Your task to perform on an android device: change the clock display to show seconds Image 0: 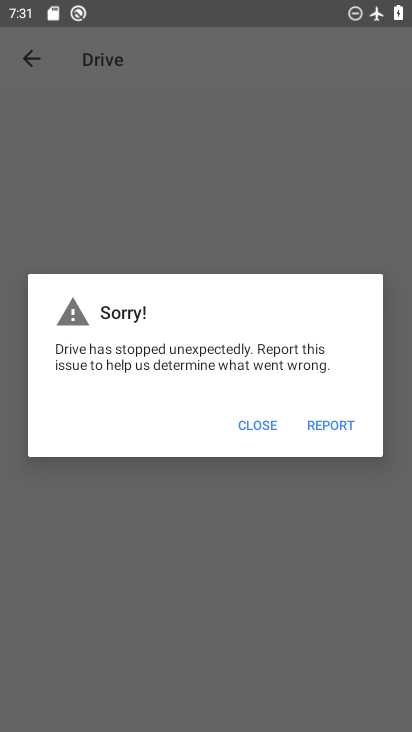
Step 0: press home button
Your task to perform on an android device: change the clock display to show seconds Image 1: 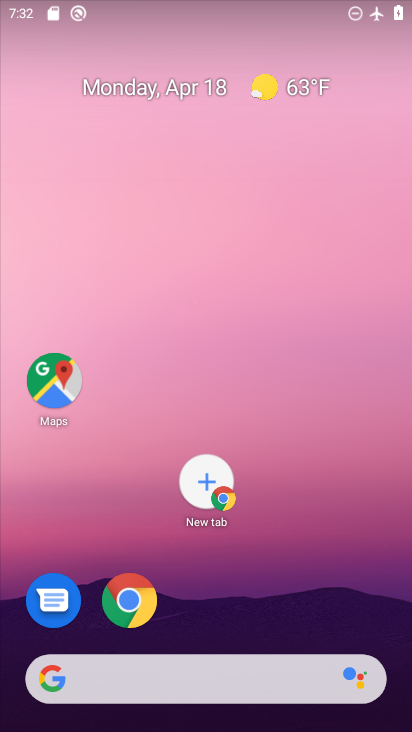
Step 1: drag from (282, 609) to (253, 11)
Your task to perform on an android device: change the clock display to show seconds Image 2: 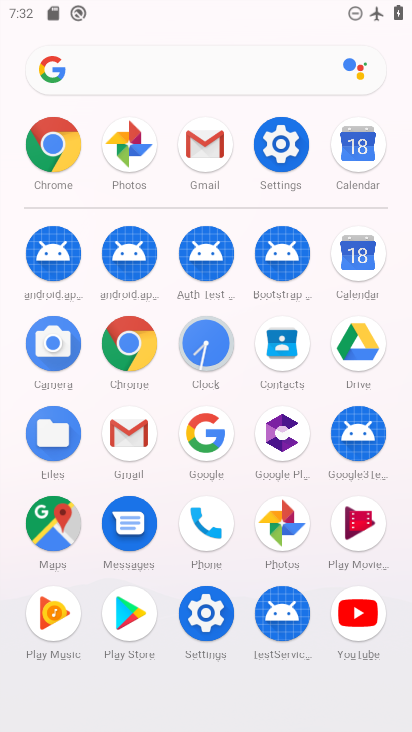
Step 2: click (202, 345)
Your task to perform on an android device: change the clock display to show seconds Image 3: 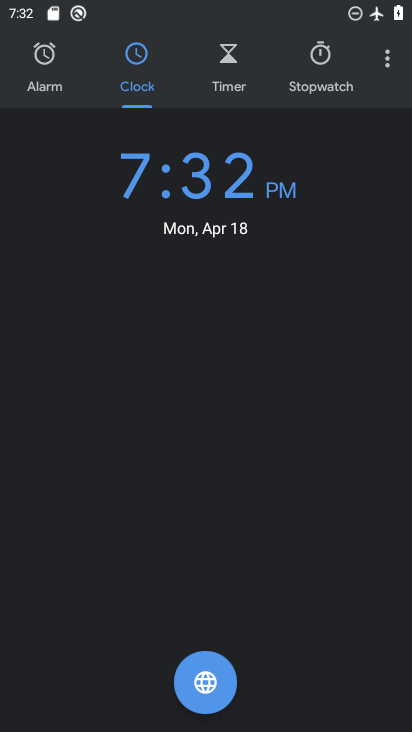
Step 3: click (382, 61)
Your task to perform on an android device: change the clock display to show seconds Image 4: 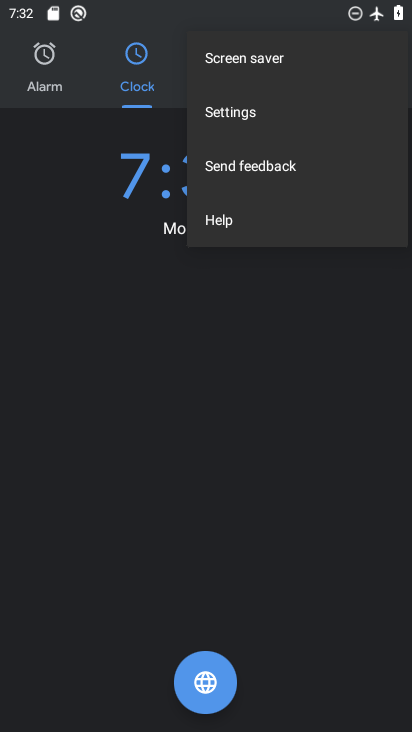
Step 4: click (247, 119)
Your task to perform on an android device: change the clock display to show seconds Image 5: 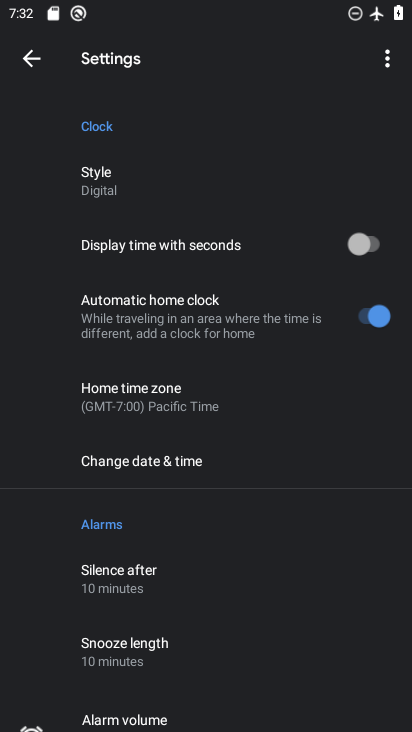
Step 5: click (353, 245)
Your task to perform on an android device: change the clock display to show seconds Image 6: 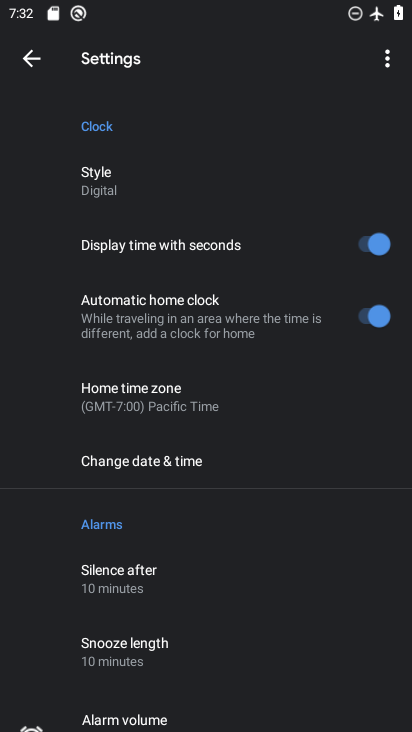
Step 6: task complete